Your task to perform on an android device: uninstall "Duolingo: language lessons" Image 0: 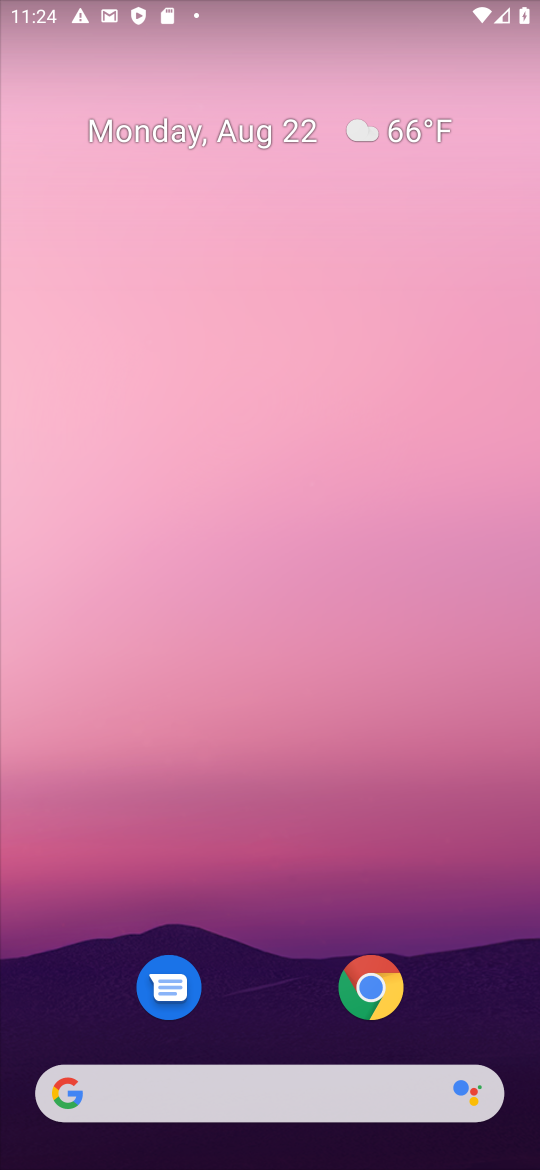
Step 0: drag from (462, 917) to (452, 151)
Your task to perform on an android device: uninstall "Duolingo: language lessons" Image 1: 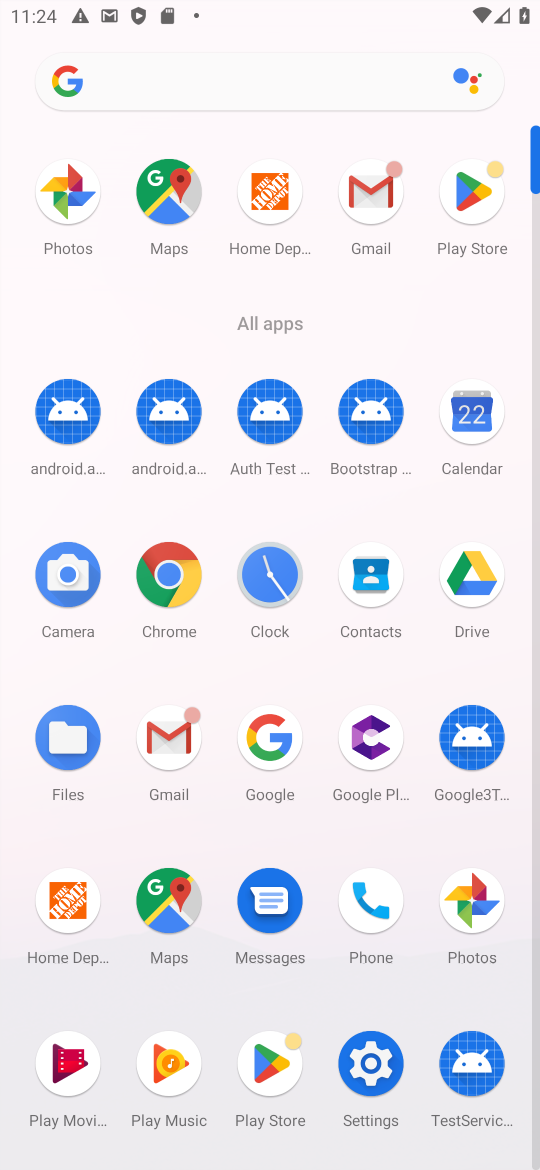
Step 1: click (469, 183)
Your task to perform on an android device: uninstall "Duolingo: language lessons" Image 2: 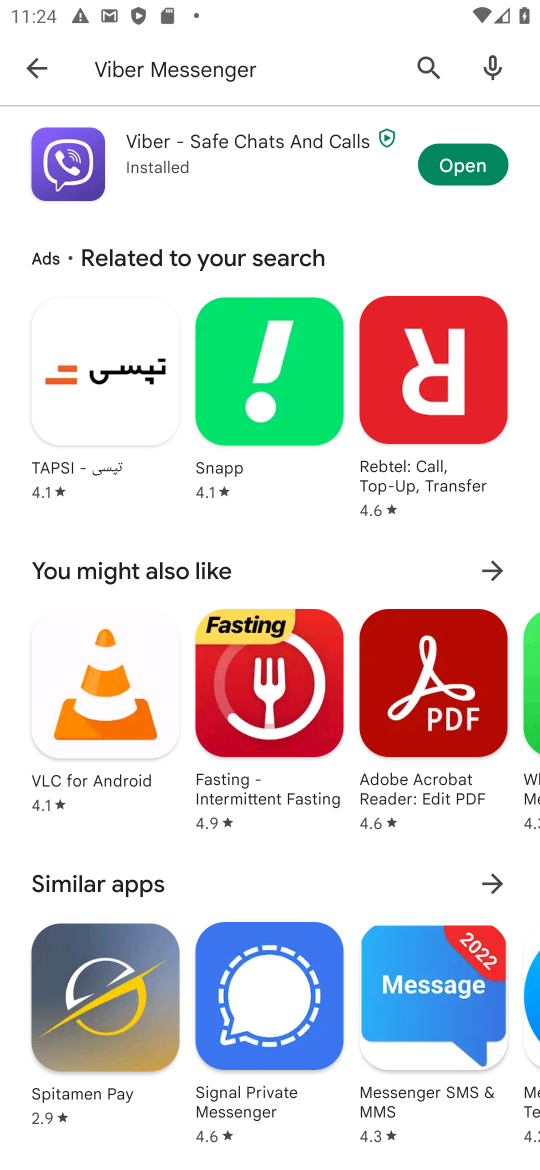
Step 2: press back button
Your task to perform on an android device: uninstall "Duolingo: language lessons" Image 3: 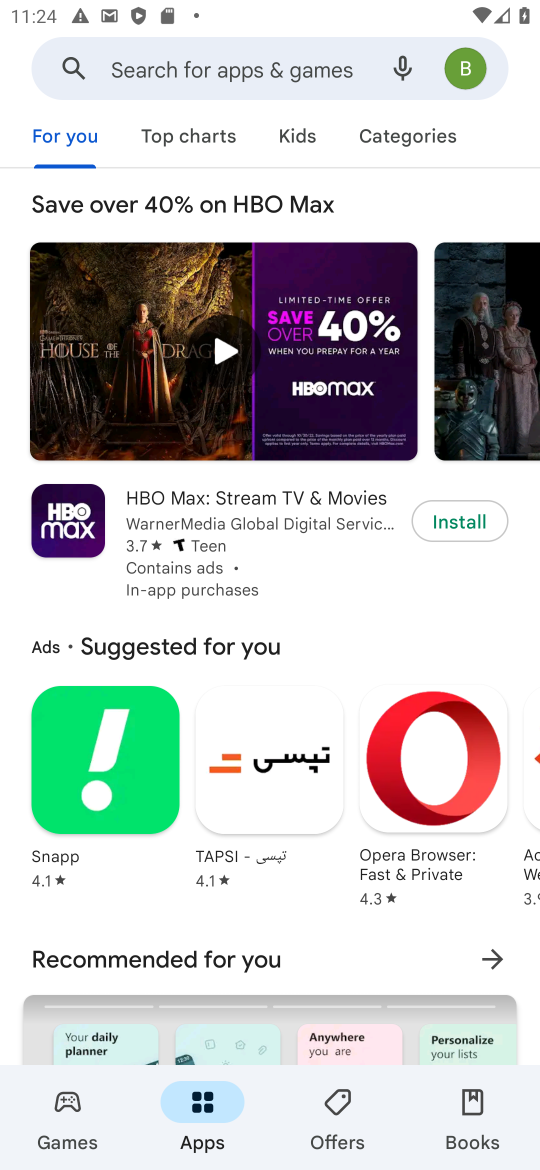
Step 3: click (209, 75)
Your task to perform on an android device: uninstall "Duolingo: language lessons" Image 4: 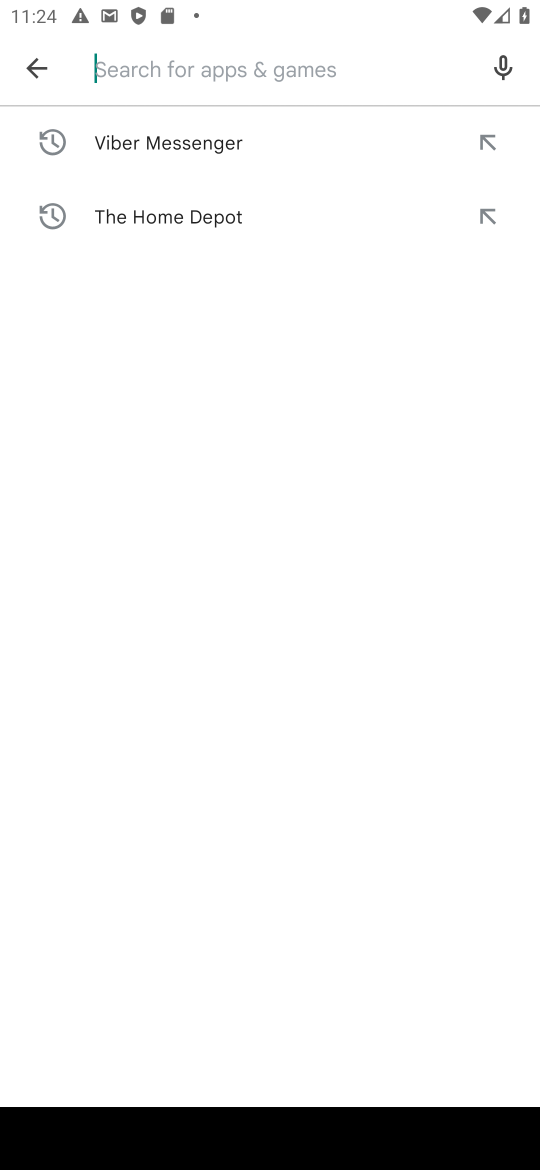
Step 4: press enter
Your task to perform on an android device: uninstall "Duolingo: language lessons" Image 5: 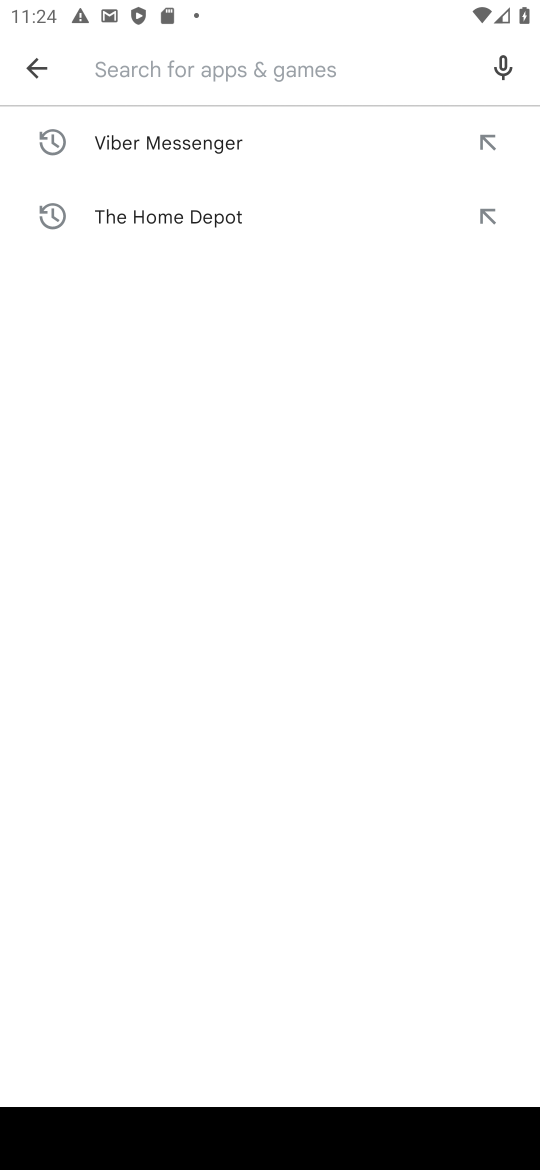
Step 5: type "Duolingo: language lessons"
Your task to perform on an android device: uninstall "Duolingo: language lessons" Image 6: 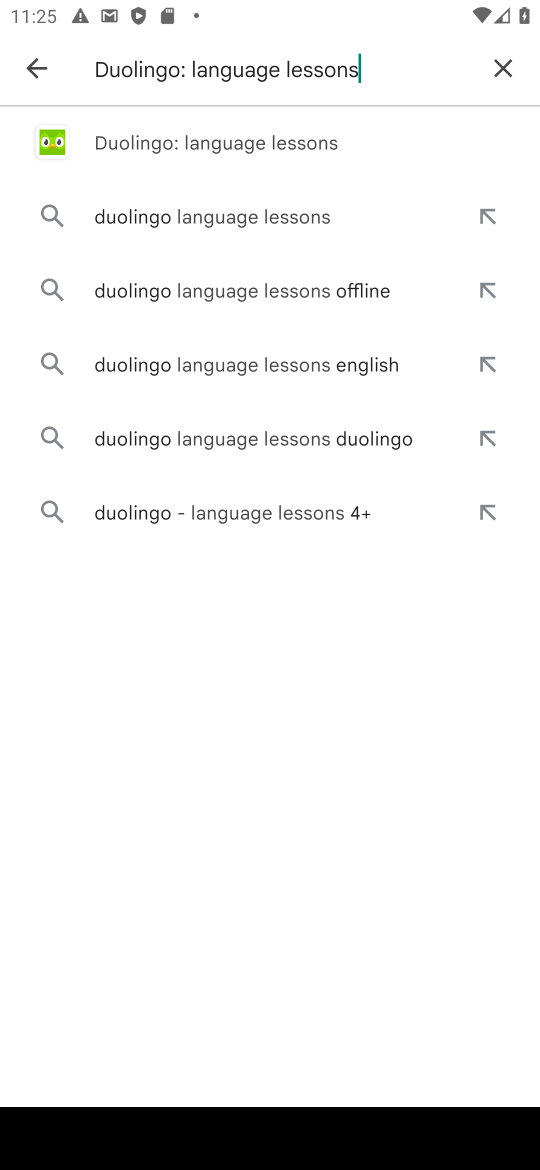
Step 6: click (272, 142)
Your task to perform on an android device: uninstall "Duolingo: language lessons" Image 7: 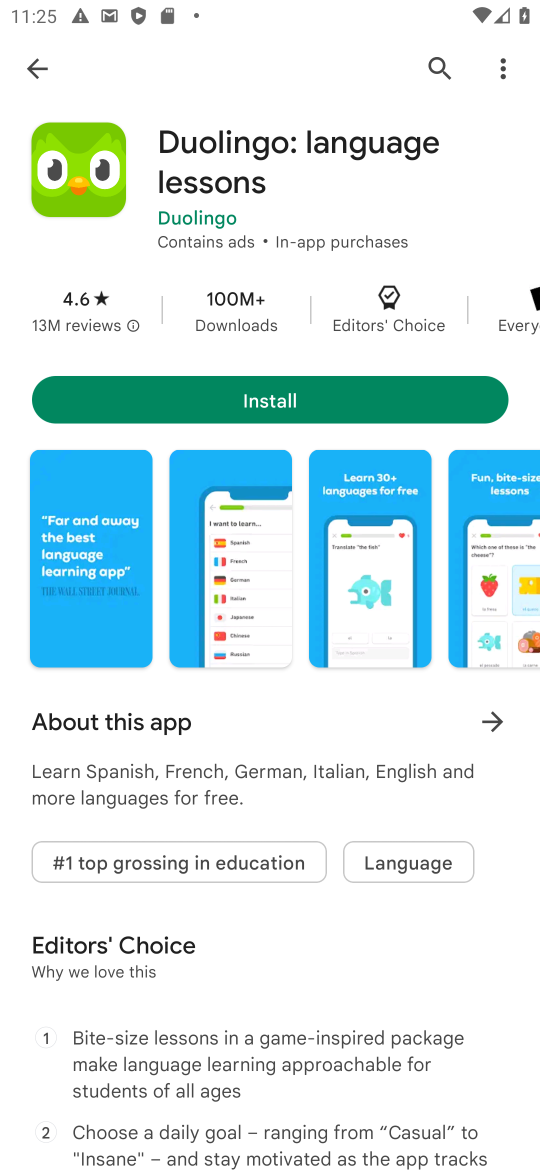
Step 7: task complete